Your task to perform on an android device: turn notification dots off Image 0: 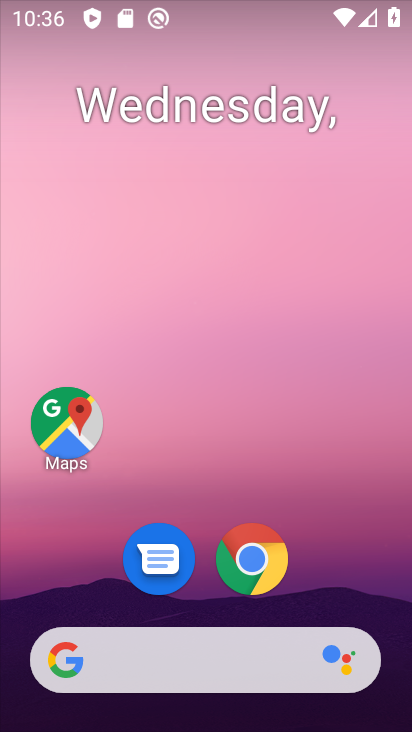
Step 0: drag from (352, 480) to (291, 75)
Your task to perform on an android device: turn notification dots off Image 1: 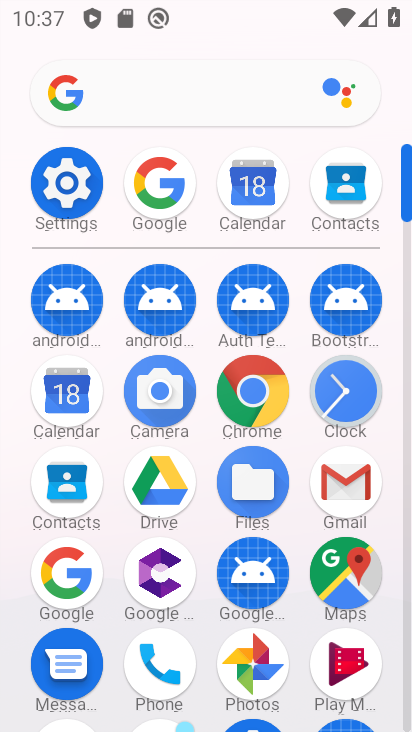
Step 1: click (79, 168)
Your task to perform on an android device: turn notification dots off Image 2: 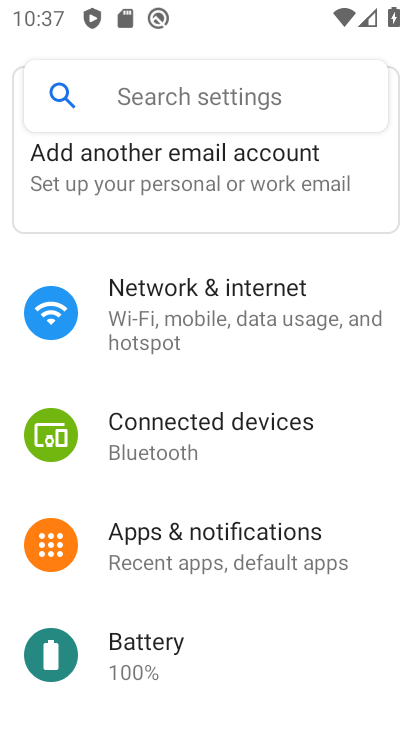
Step 2: click (242, 562)
Your task to perform on an android device: turn notification dots off Image 3: 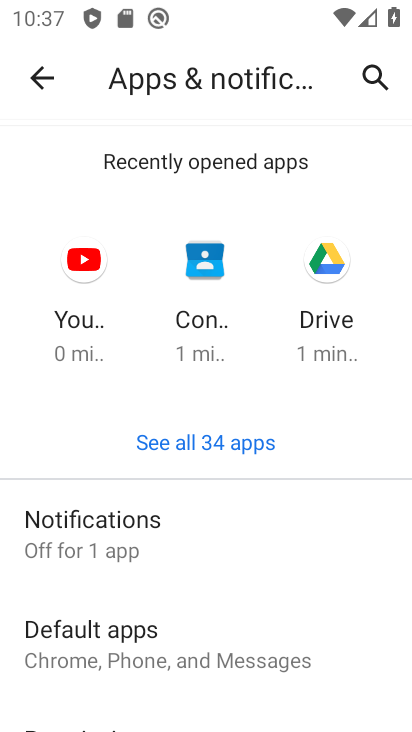
Step 3: click (102, 511)
Your task to perform on an android device: turn notification dots off Image 4: 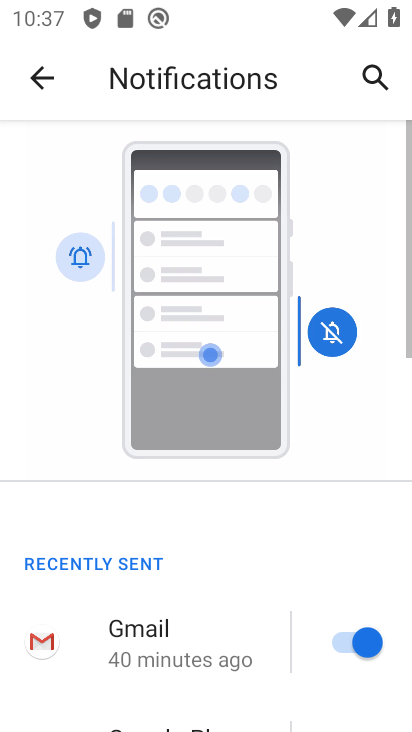
Step 4: drag from (270, 599) to (190, 208)
Your task to perform on an android device: turn notification dots off Image 5: 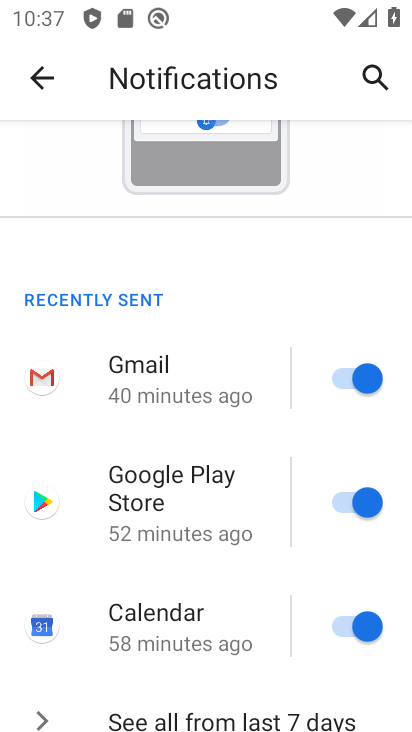
Step 5: drag from (174, 632) to (145, 182)
Your task to perform on an android device: turn notification dots off Image 6: 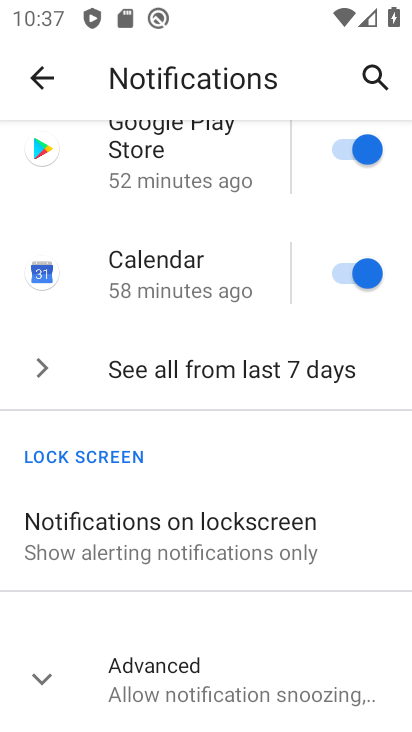
Step 6: drag from (206, 542) to (168, 260)
Your task to perform on an android device: turn notification dots off Image 7: 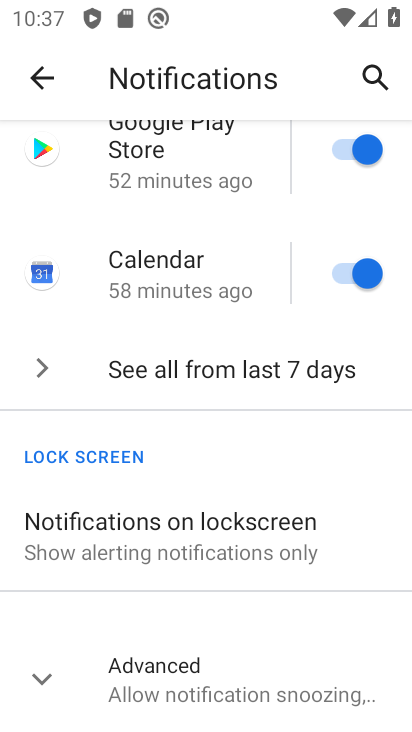
Step 7: click (155, 682)
Your task to perform on an android device: turn notification dots off Image 8: 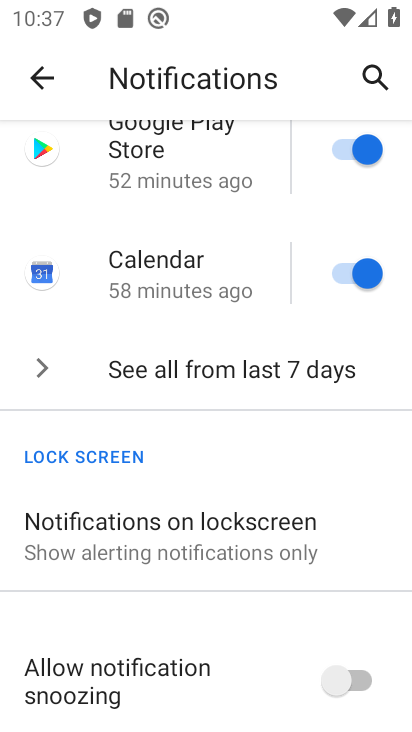
Step 8: drag from (192, 599) to (132, 227)
Your task to perform on an android device: turn notification dots off Image 9: 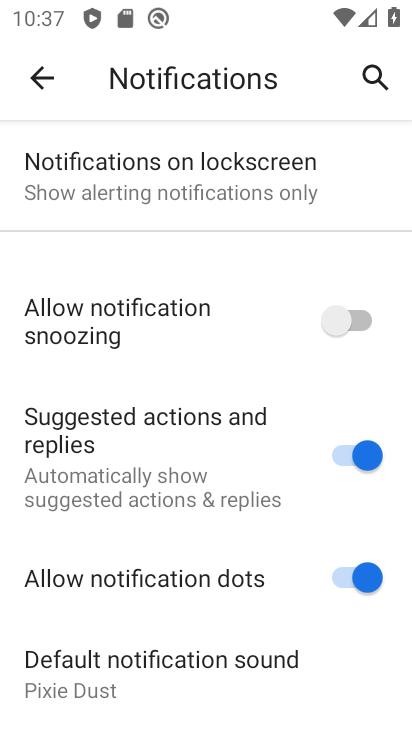
Step 9: click (360, 570)
Your task to perform on an android device: turn notification dots off Image 10: 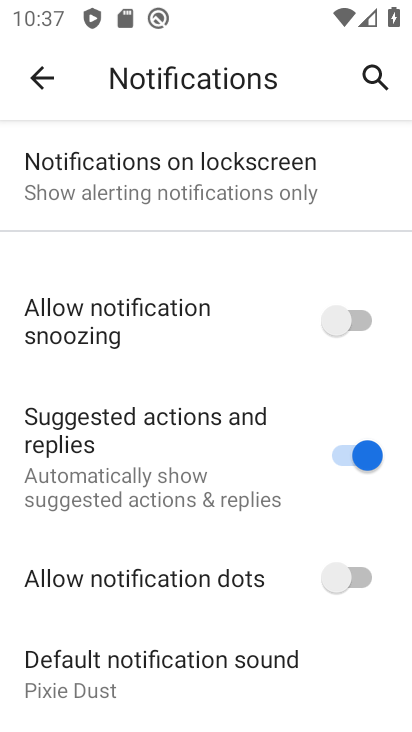
Step 10: task complete